Your task to perform on an android device: turn on wifi Image 0: 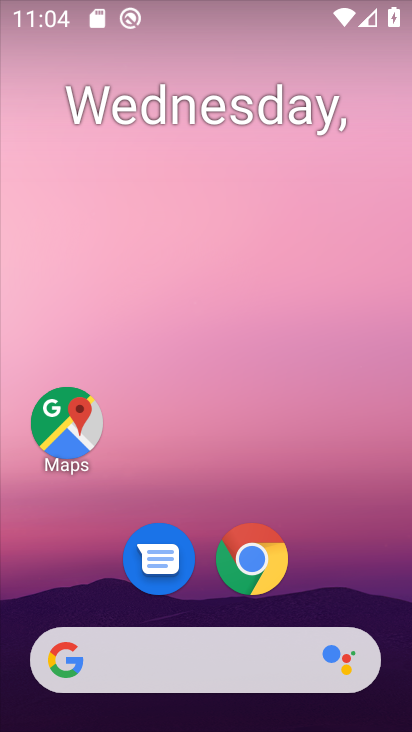
Step 0: drag from (274, 694) to (353, 118)
Your task to perform on an android device: turn on wifi Image 1: 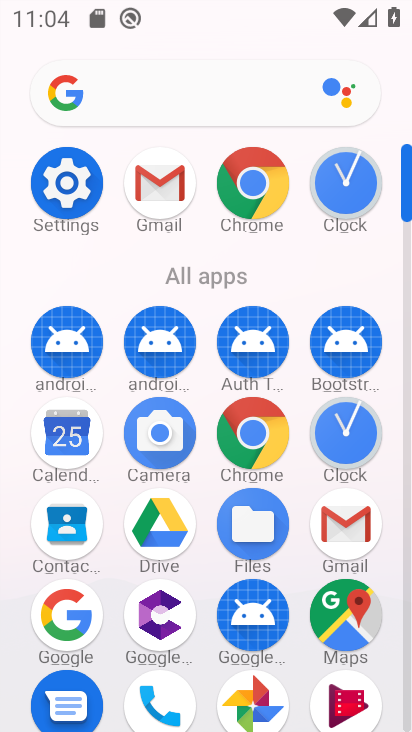
Step 1: click (71, 206)
Your task to perform on an android device: turn on wifi Image 2: 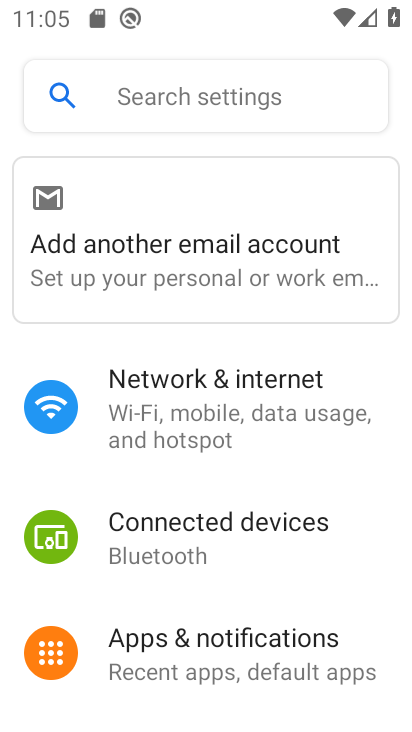
Step 2: click (164, 379)
Your task to perform on an android device: turn on wifi Image 3: 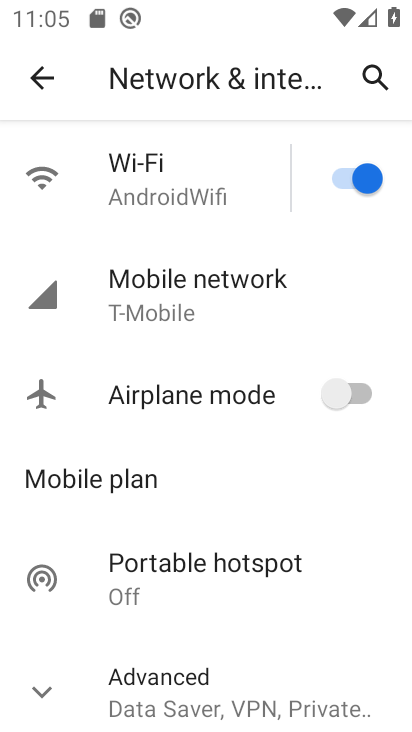
Step 3: click (190, 208)
Your task to perform on an android device: turn on wifi Image 4: 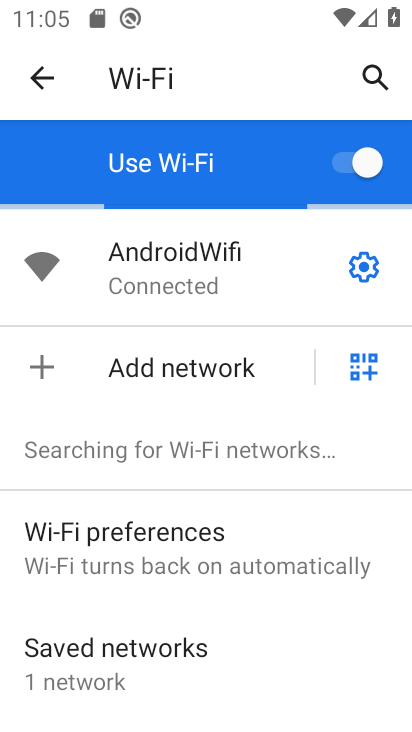
Step 4: task complete